Your task to perform on an android device: Search for seafood restaurants on Google Maps Image 0: 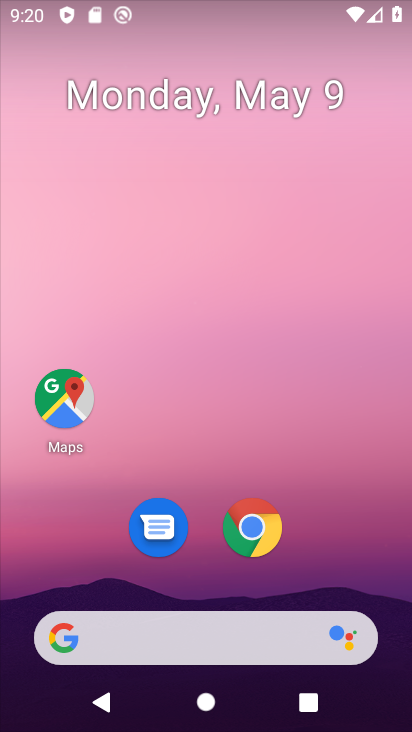
Step 0: click (49, 404)
Your task to perform on an android device: Search for seafood restaurants on Google Maps Image 1: 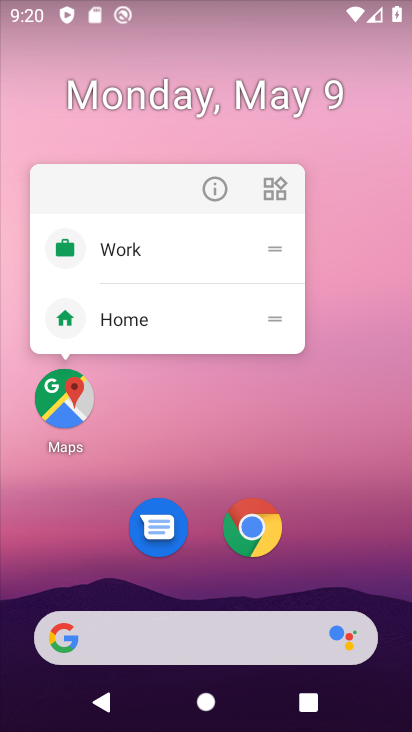
Step 1: click (61, 410)
Your task to perform on an android device: Search for seafood restaurants on Google Maps Image 2: 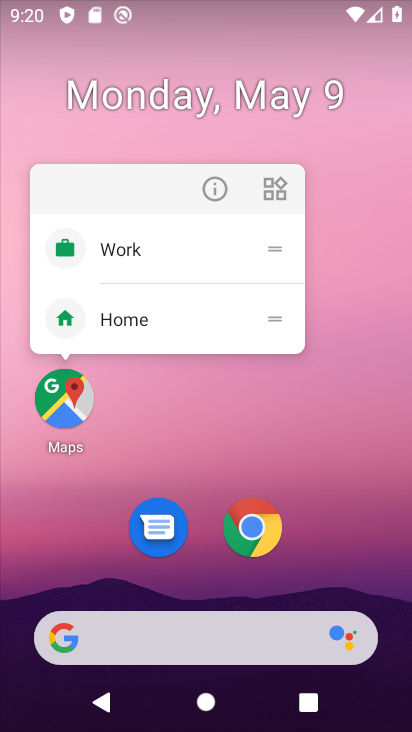
Step 2: click (59, 424)
Your task to perform on an android device: Search for seafood restaurants on Google Maps Image 3: 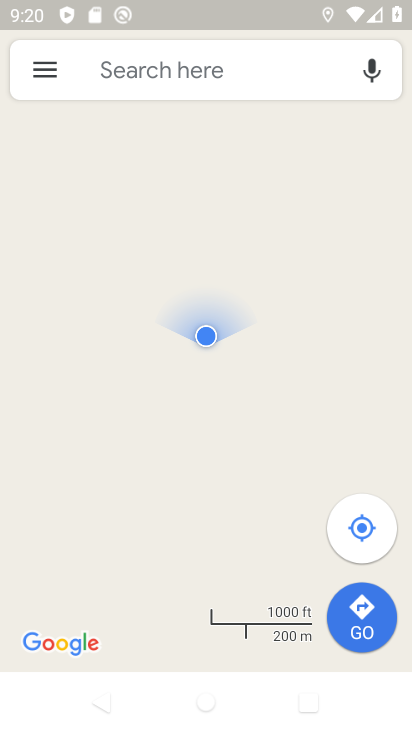
Step 3: click (109, 66)
Your task to perform on an android device: Search for seafood restaurants on Google Maps Image 4: 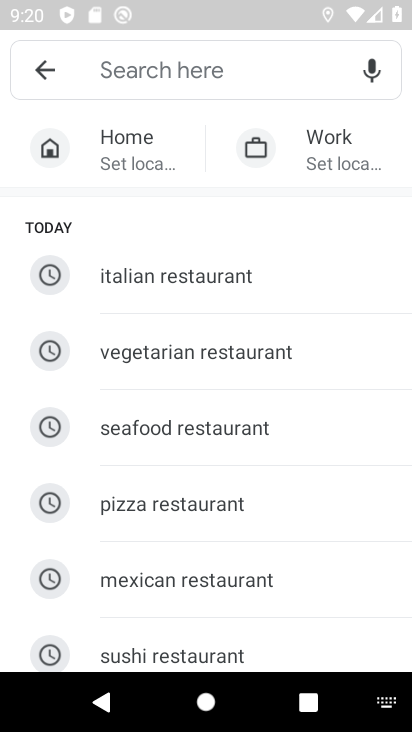
Step 4: type "sea"
Your task to perform on an android device: Search for seafood restaurants on Google Maps Image 5: 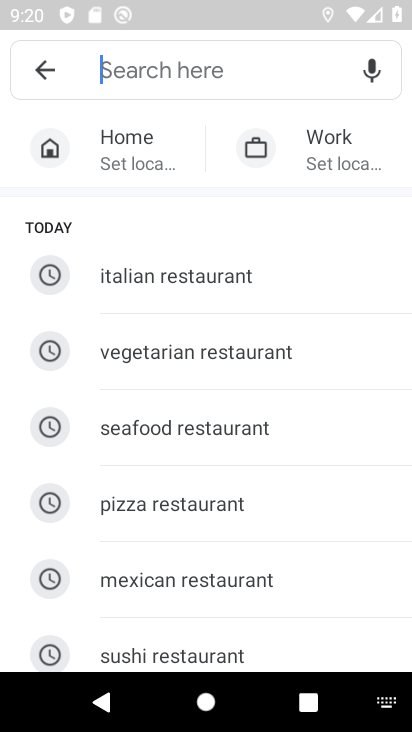
Step 5: click (160, 435)
Your task to perform on an android device: Search for seafood restaurants on Google Maps Image 6: 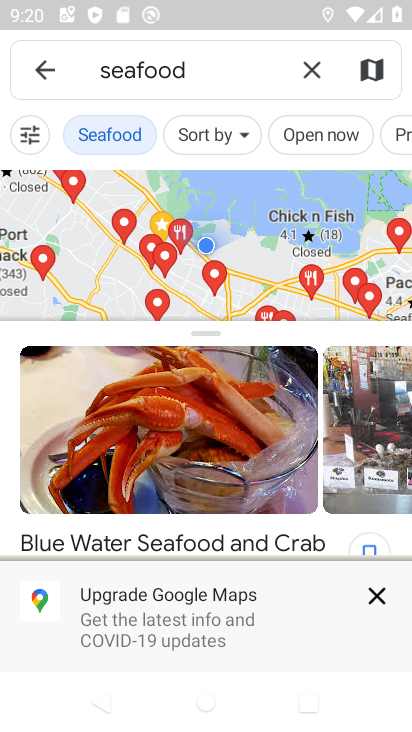
Step 6: click (376, 605)
Your task to perform on an android device: Search for seafood restaurants on Google Maps Image 7: 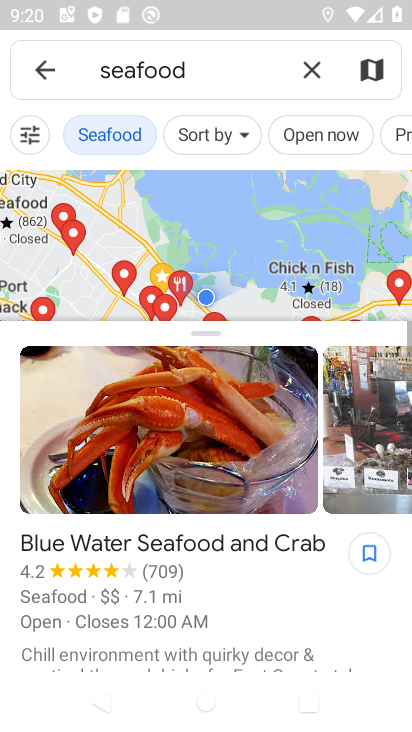
Step 7: task complete